Your task to perform on an android device: change the clock style Image 0: 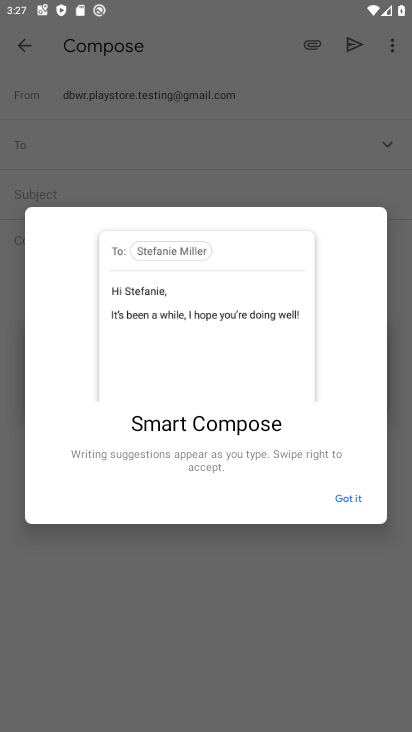
Step 0: press back button
Your task to perform on an android device: change the clock style Image 1: 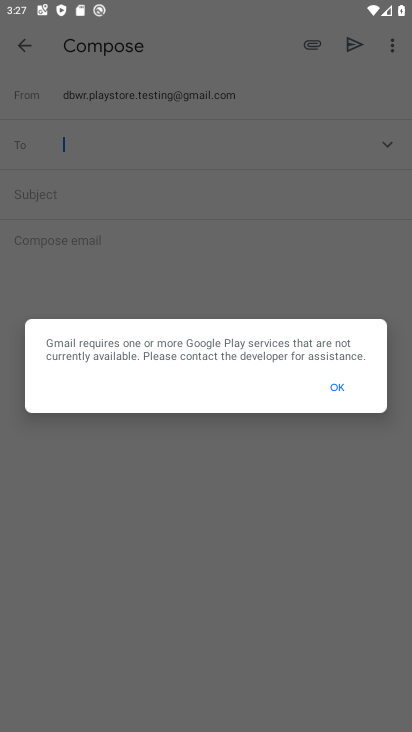
Step 1: press home button
Your task to perform on an android device: change the clock style Image 2: 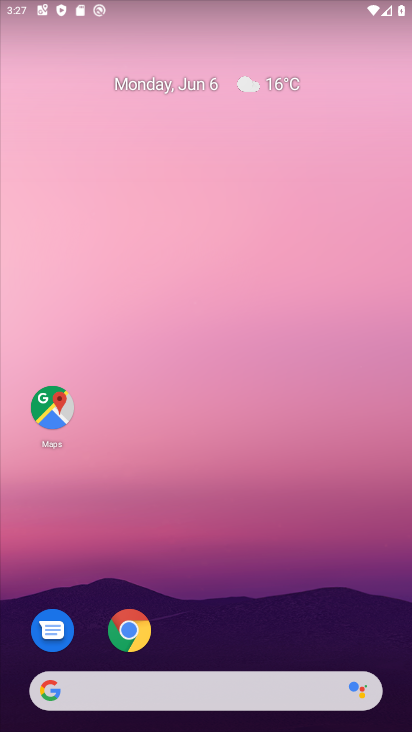
Step 2: drag from (204, 643) to (316, 73)
Your task to perform on an android device: change the clock style Image 3: 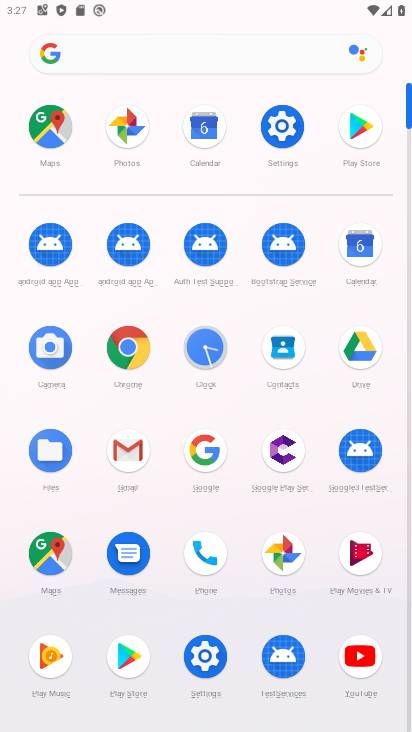
Step 3: click (206, 341)
Your task to perform on an android device: change the clock style Image 4: 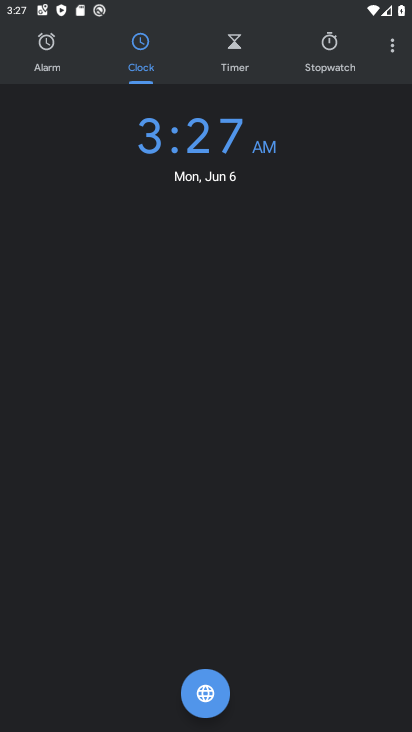
Step 4: click (388, 41)
Your task to perform on an android device: change the clock style Image 5: 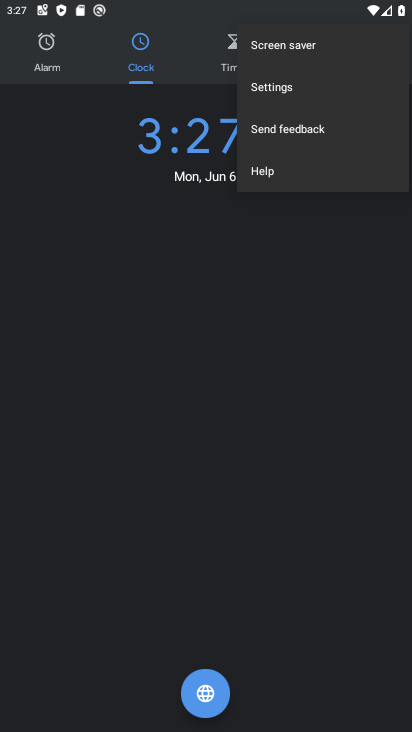
Step 5: click (285, 86)
Your task to perform on an android device: change the clock style Image 6: 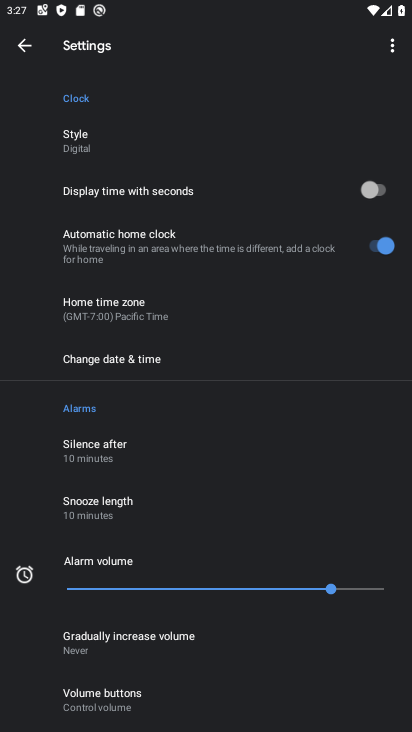
Step 6: click (142, 139)
Your task to perform on an android device: change the clock style Image 7: 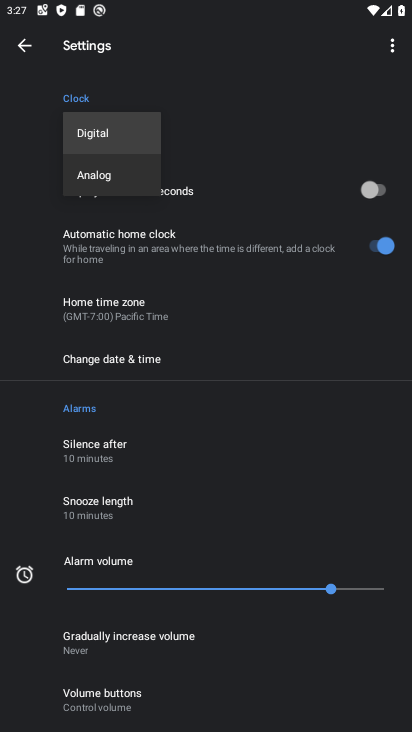
Step 7: click (96, 170)
Your task to perform on an android device: change the clock style Image 8: 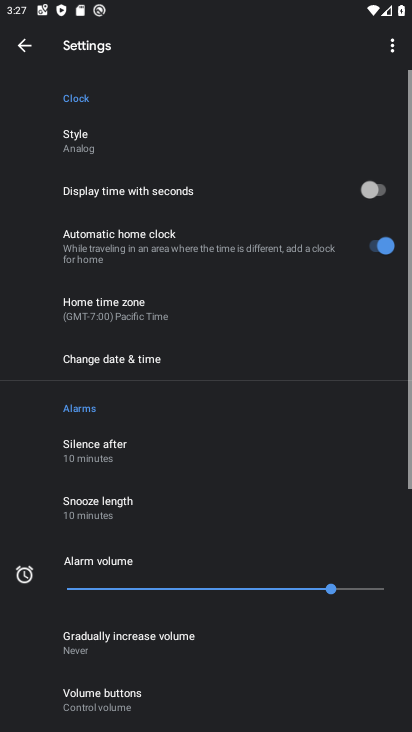
Step 8: task complete